Your task to perform on an android device: visit the assistant section in the google photos Image 0: 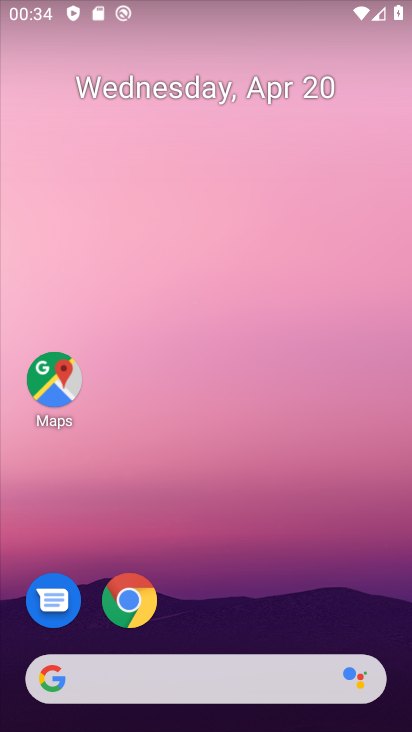
Step 0: drag from (193, 594) to (354, 11)
Your task to perform on an android device: visit the assistant section in the google photos Image 1: 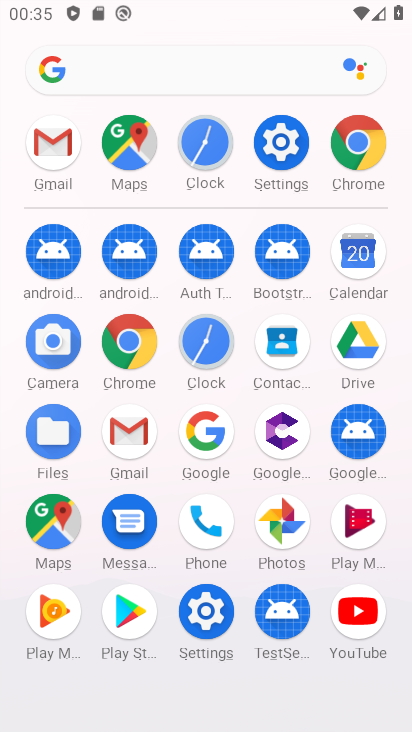
Step 1: click (283, 517)
Your task to perform on an android device: visit the assistant section in the google photos Image 2: 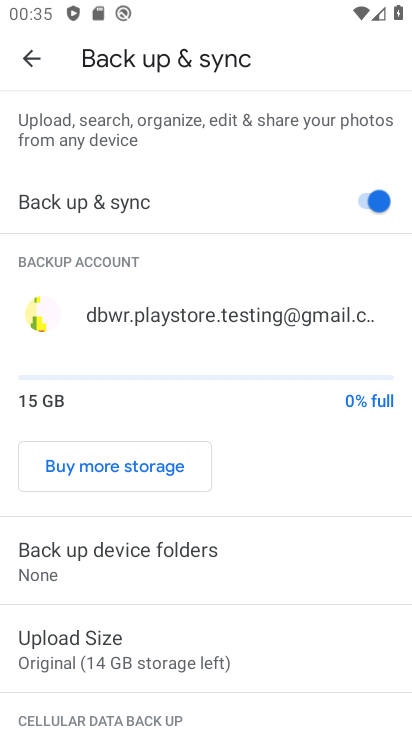
Step 2: click (22, 59)
Your task to perform on an android device: visit the assistant section in the google photos Image 3: 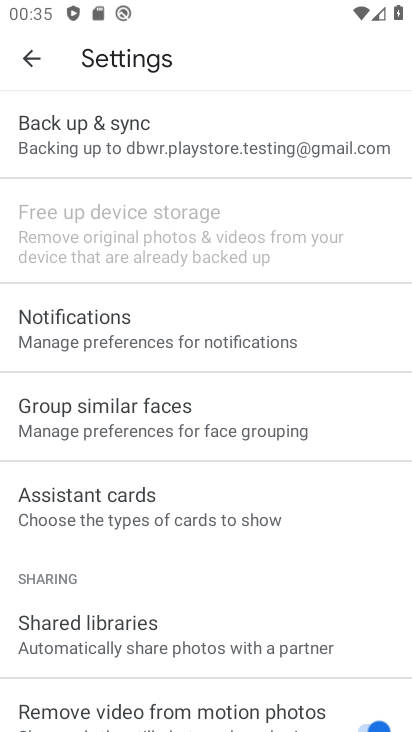
Step 3: click (21, 60)
Your task to perform on an android device: visit the assistant section in the google photos Image 4: 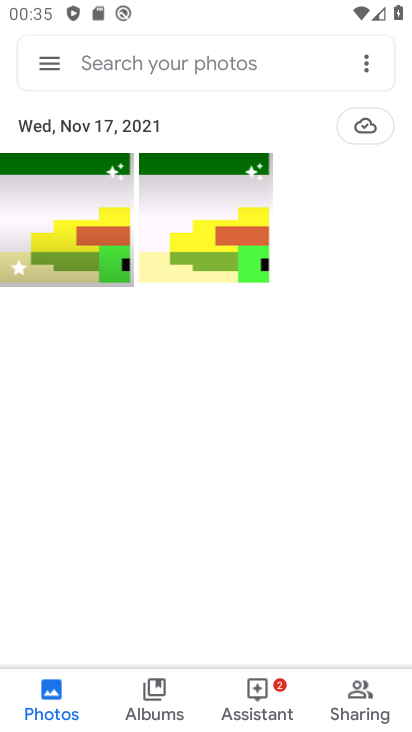
Step 4: click (270, 690)
Your task to perform on an android device: visit the assistant section in the google photos Image 5: 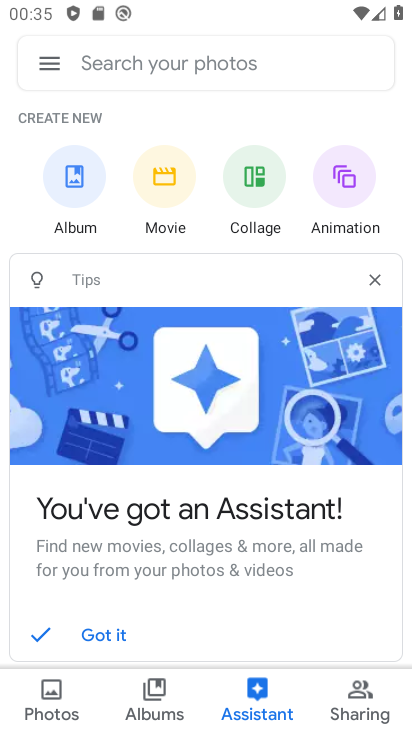
Step 5: task complete